Your task to perform on an android device: Go to battery settings Image 0: 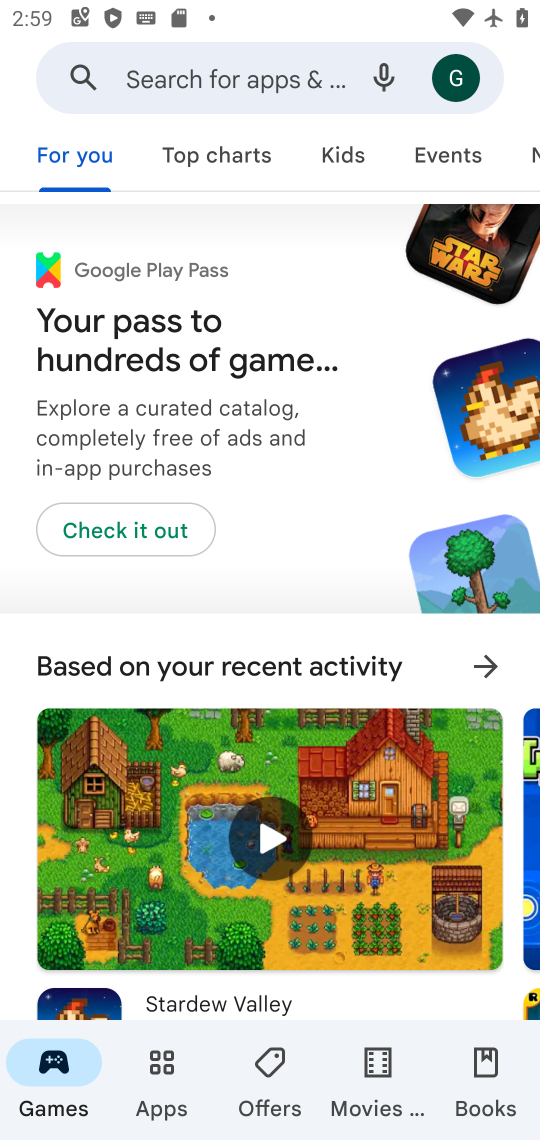
Step 0: press home button
Your task to perform on an android device: Go to battery settings Image 1: 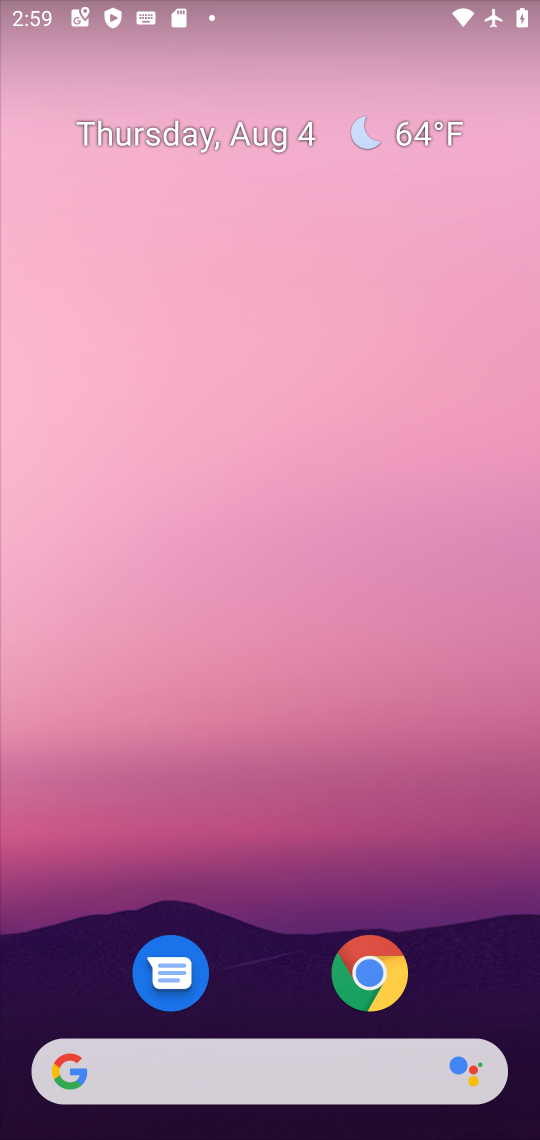
Step 1: drag from (276, 969) to (276, 278)
Your task to perform on an android device: Go to battery settings Image 2: 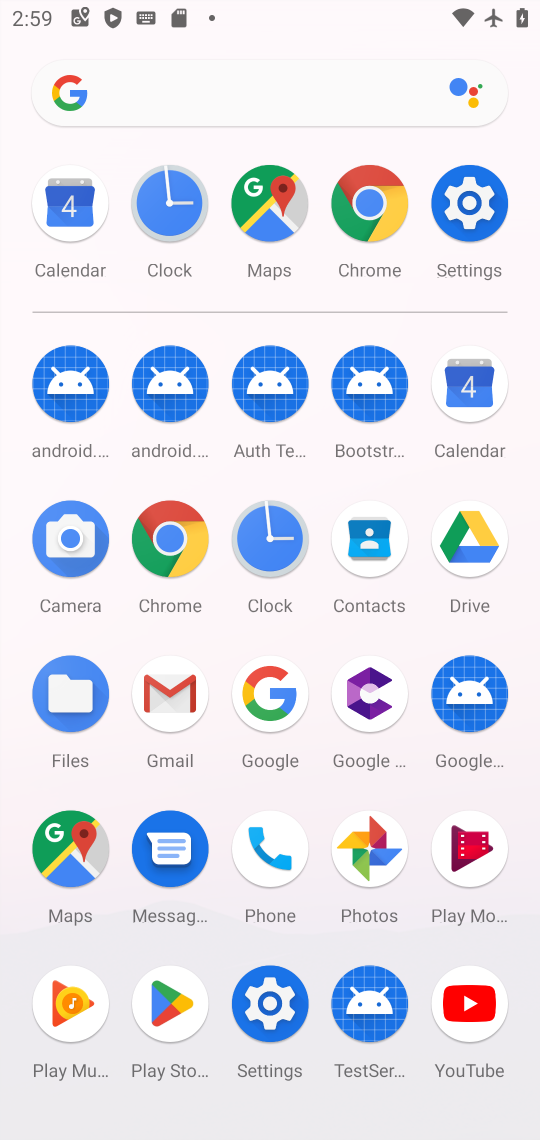
Step 2: click (295, 991)
Your task to perform on an android device: Go to battery settings Image 3: 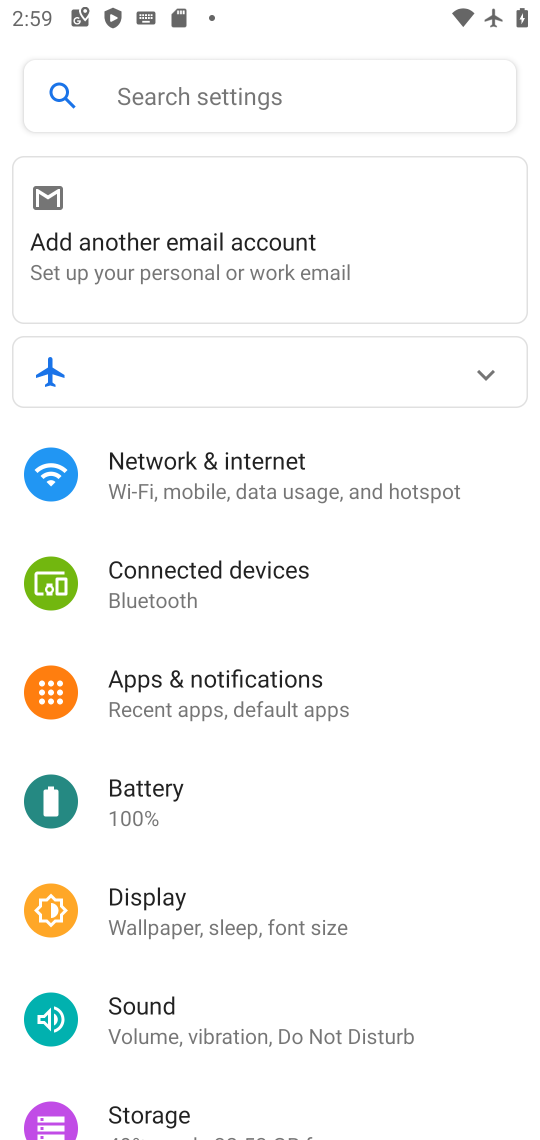
Step 3: click (119, 788)
Your task to perform on an android device: Go to battery settings Image 4: 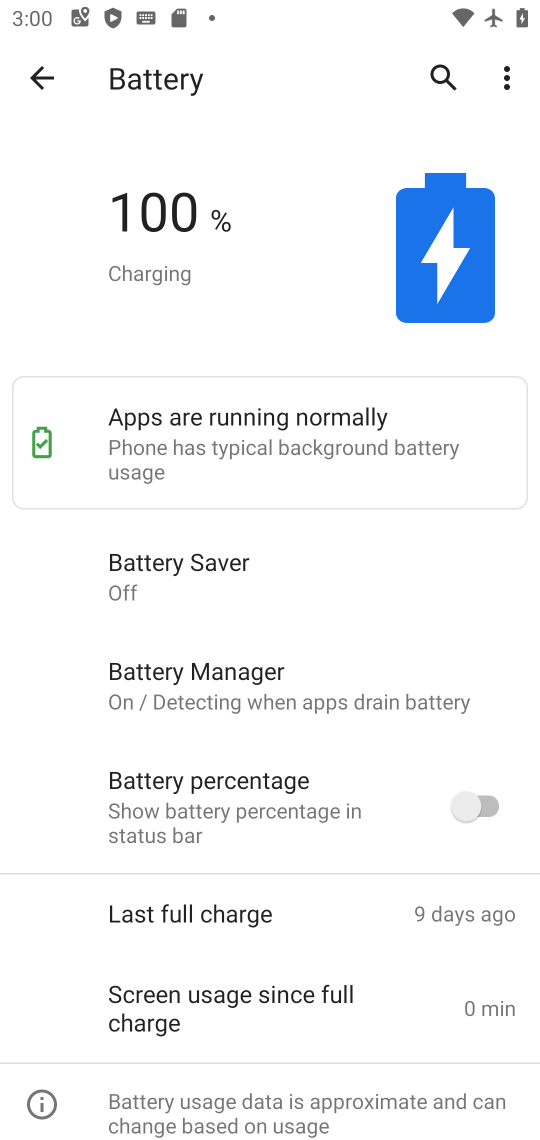
Step 4: task complete